Your task to perform on an android device: toggle javascript in the chrome app Image 0: 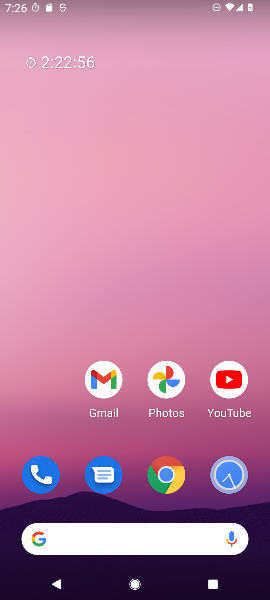
Step 0: press home button
Your task to perform on an android device: toggle javascript in the chrome app Image 1: 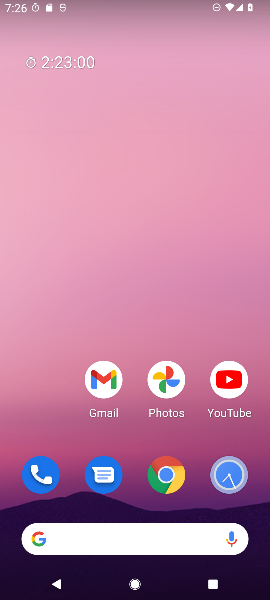
Step 1: drag from (50, 415) to (50, 124)
Your task to perform on an android device: toggle javascript in the chrome app Image 2: 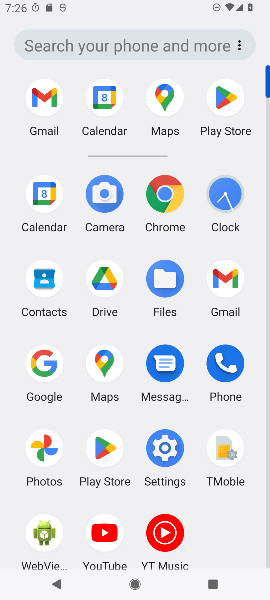
Step 2: click (164, 195)
Your task to perform on an android device: toggle javascript in the chrome app Image 3: 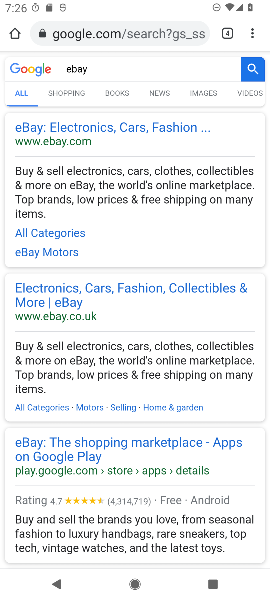
Step 3: click (253, 35)
Your task to perform on an android device: toggle javascript in the chrome app Image 4: 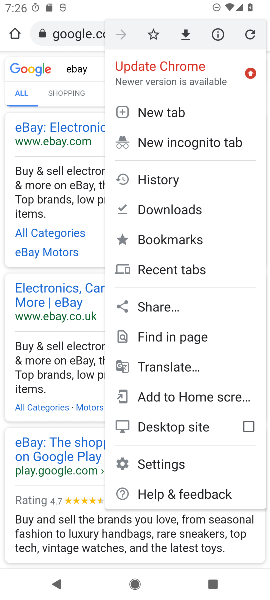
Step 4: click (163, 467)
Your task to perform on an android device: toggle javascript in the chrome app Image 5: 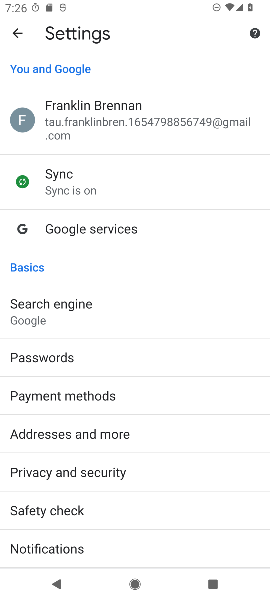
Step 5: drag from (210, 416) to (210, 329)
Your task to perform on an android device: toggle javascript in the chrome app Image 6: 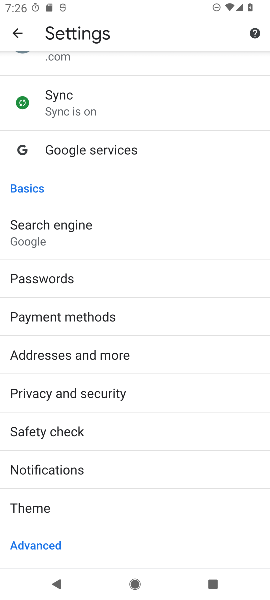
Step 6: drag from (207, 439) to (207, 335)
Your task to perform on an android device: toggle javascript in the chrome app Image 7: 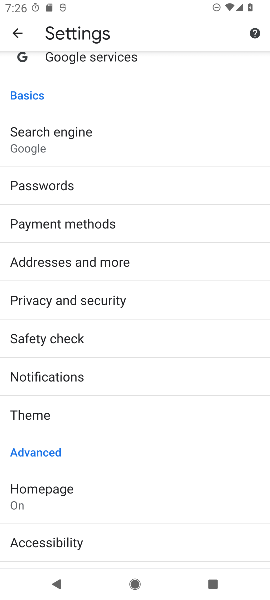
Step 7: drag from (199, 435) to (201, 312)
Your task to perform on an android device: toggle javascript in the chrome app Image 8: 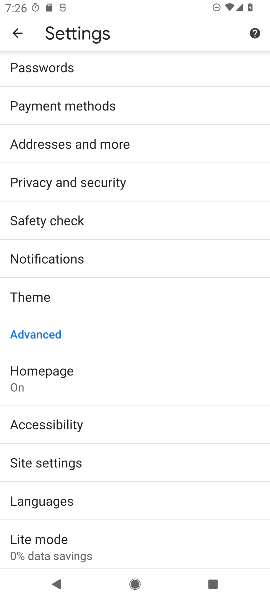
Step 8: drag from (185, 429) to (191, 338)
Your task to perform on an android device: toggle javascript in the chrome app Image 9: 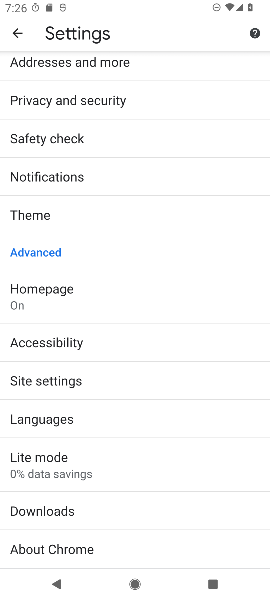
Step 9: drag from (186, 438) to (191, 346)
Your task to perform on an android device: toggle javascript in the chrome app Image 10: 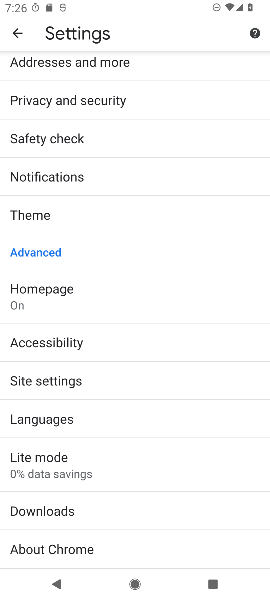
Step 10: click (165, 379)
Your task to perform on an android device: toggle javascript in the chrome app Image 11: 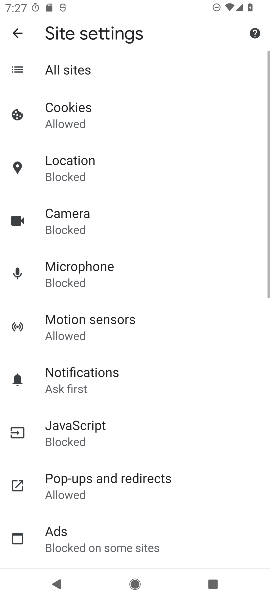
Step 11: drag from (190, 438) to (199, 339)
Your task to perform on an android device: toggle javascript in the chrome app Image 12: 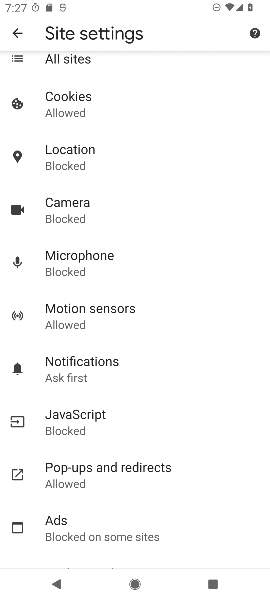
Step 12: drag from (213, 460) to (216, 344)
Your task to perform on an android device: toggle javascript in the chrome app Image 13: 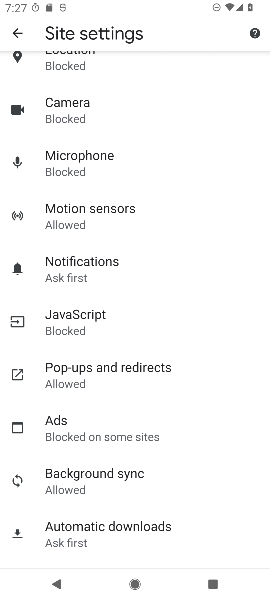
Step 13: drag from (210, 448) to (216, 363)
Your task to perform on an android device: toggle javascript in the chrome app Image 14: 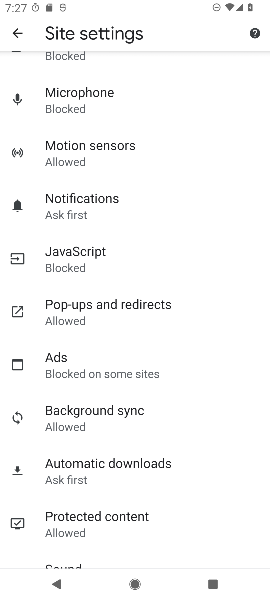
Step 14: drag from (216, 464) to (213, 364)
Your task to perform on an android device: toggle javascript in the chrome app Image 15: 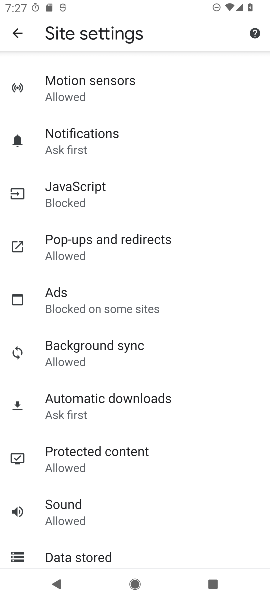
Step 15: click (133, 191)
Your task to perform on an android device: toggle javascript in the chrome app Image 16: 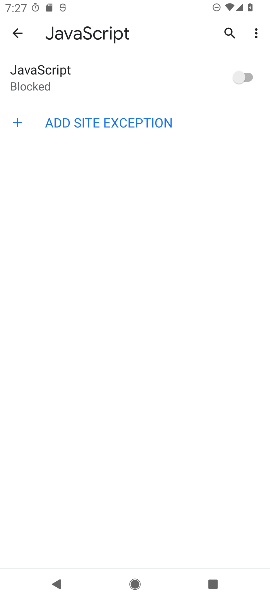
Step 16: click (242, 75)
Your task to perform on an android device: toggle javascript in the chrome app Image 17: 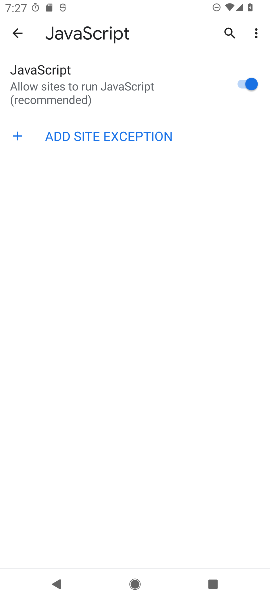
Step 17: task complete